Your task to perform on an android device: Open Google Chrome and click the shortcut for Amazon.com Image 0: 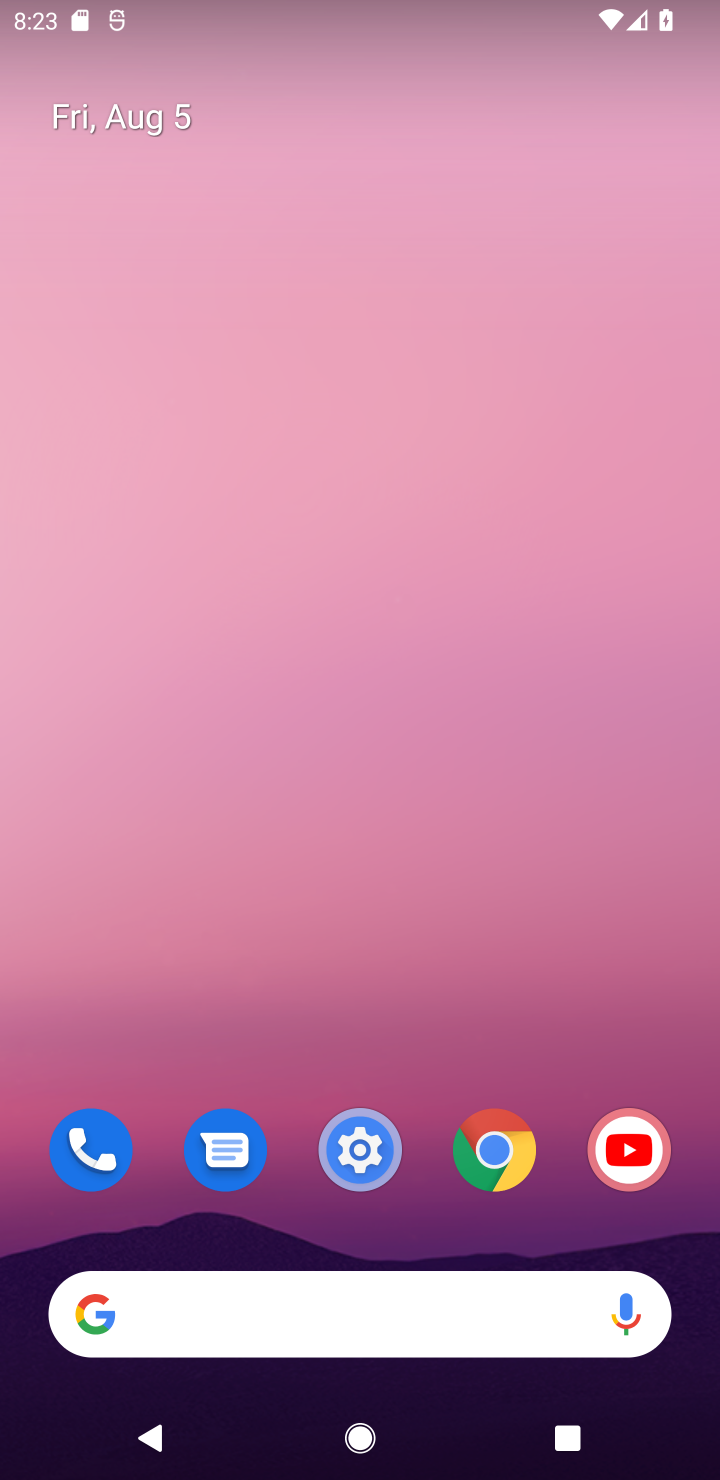
Step 0: press home button
Your task to perform on an android device: Open Google Chrome and click the shortcut for Amazon.com Image 1: 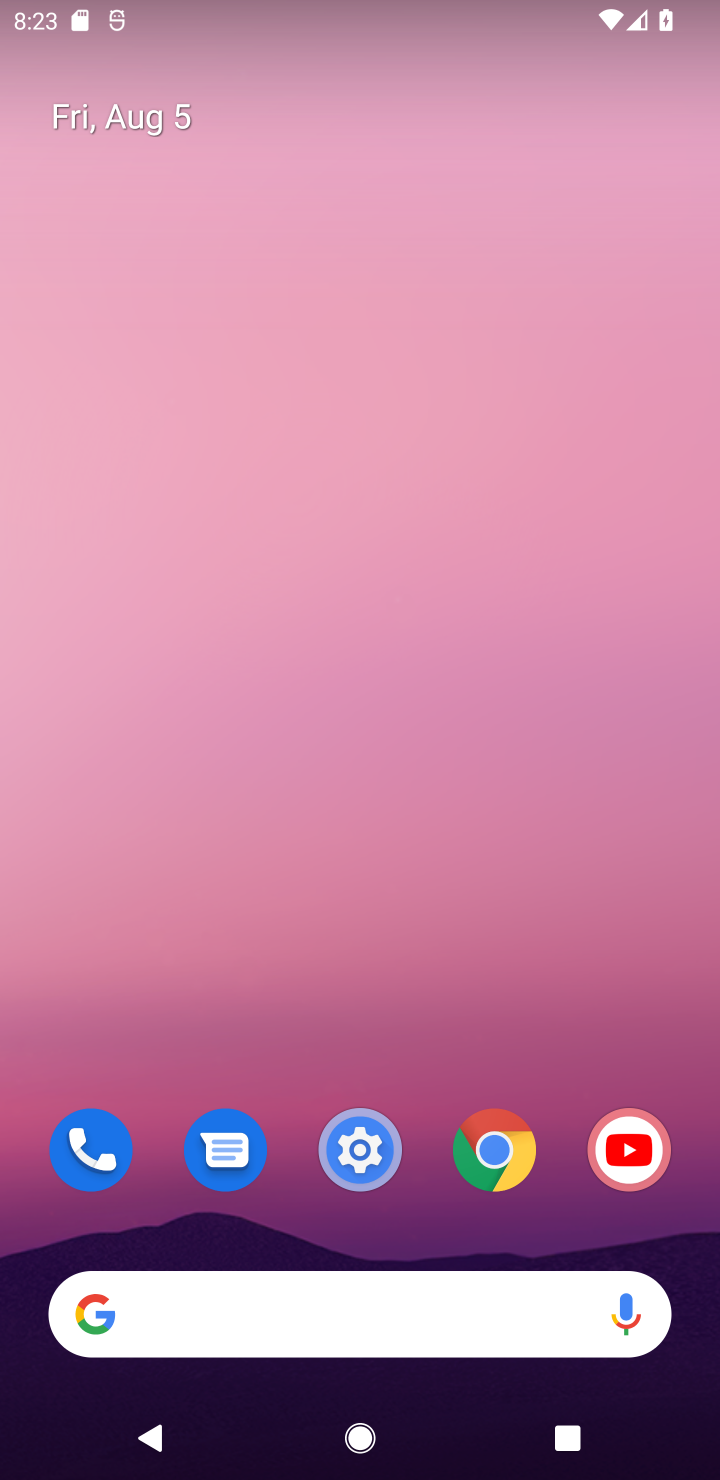
Step 1: drag from (425, 1000) to (497, 271)
Your task to perform on an android device: Open Google Chrome and click the shortcut for Amazon.com Image 2: 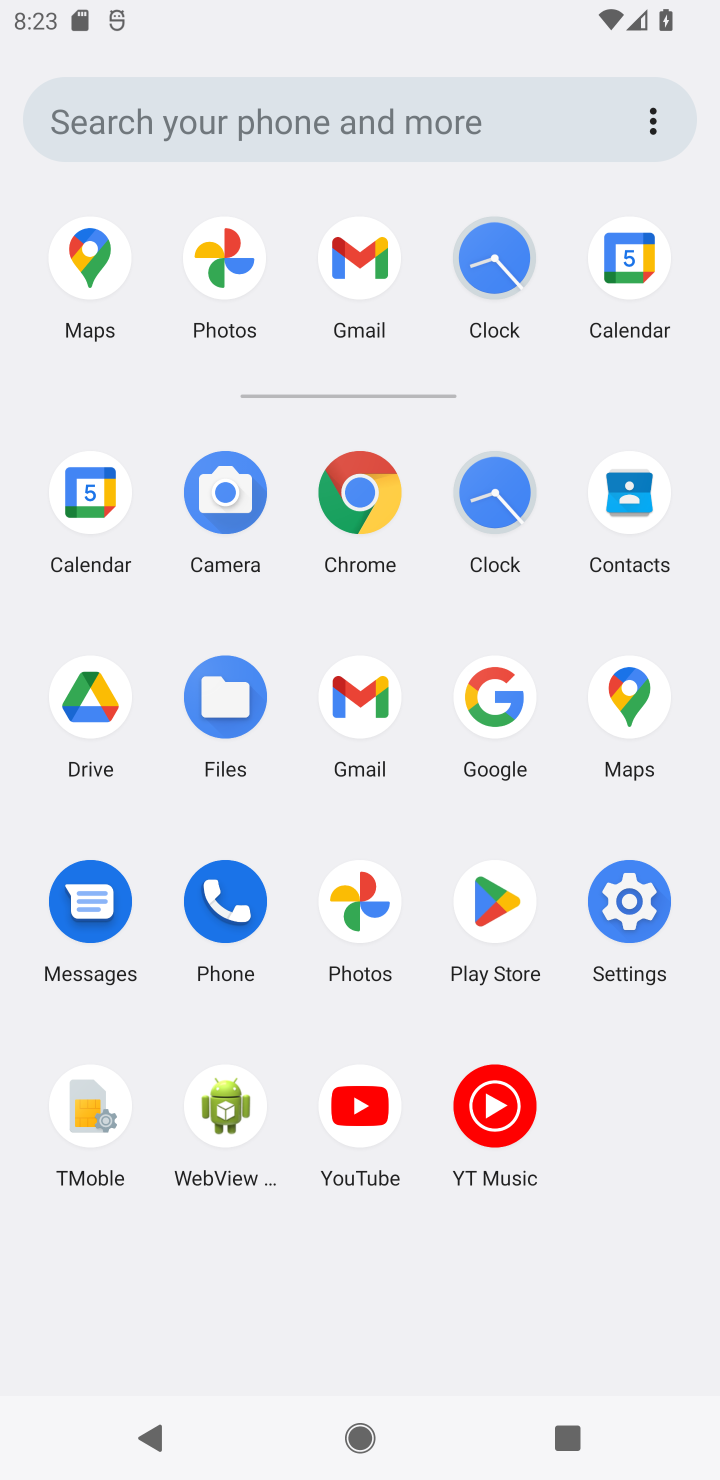
Step 2: click (357, 512)
Your task to perform on an android device: Open Google Chrome and click the shortcut for Amazon.com Image 3: 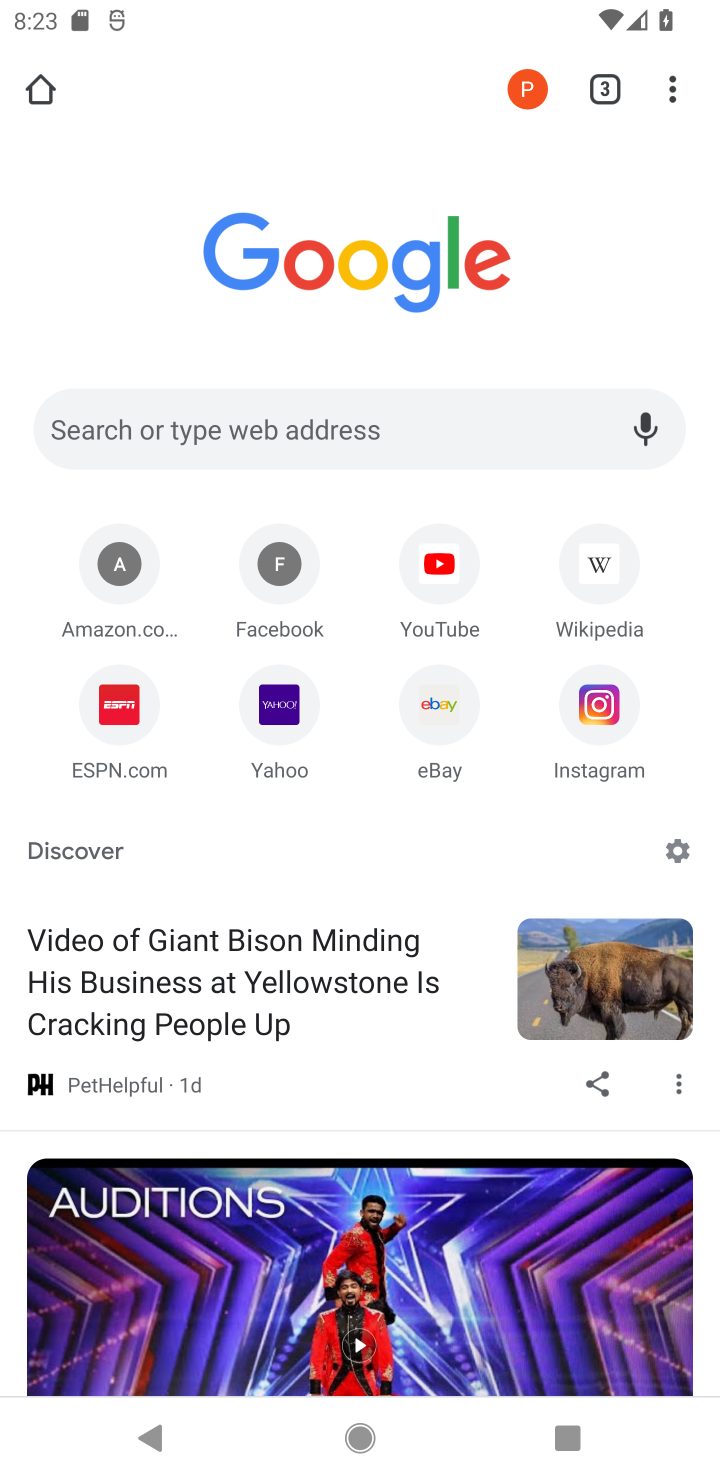
Step 3: click (108, 557)
Your task to perform on an android device: Open Google Chrome and click the shortcut for Amazon.com Image 4: 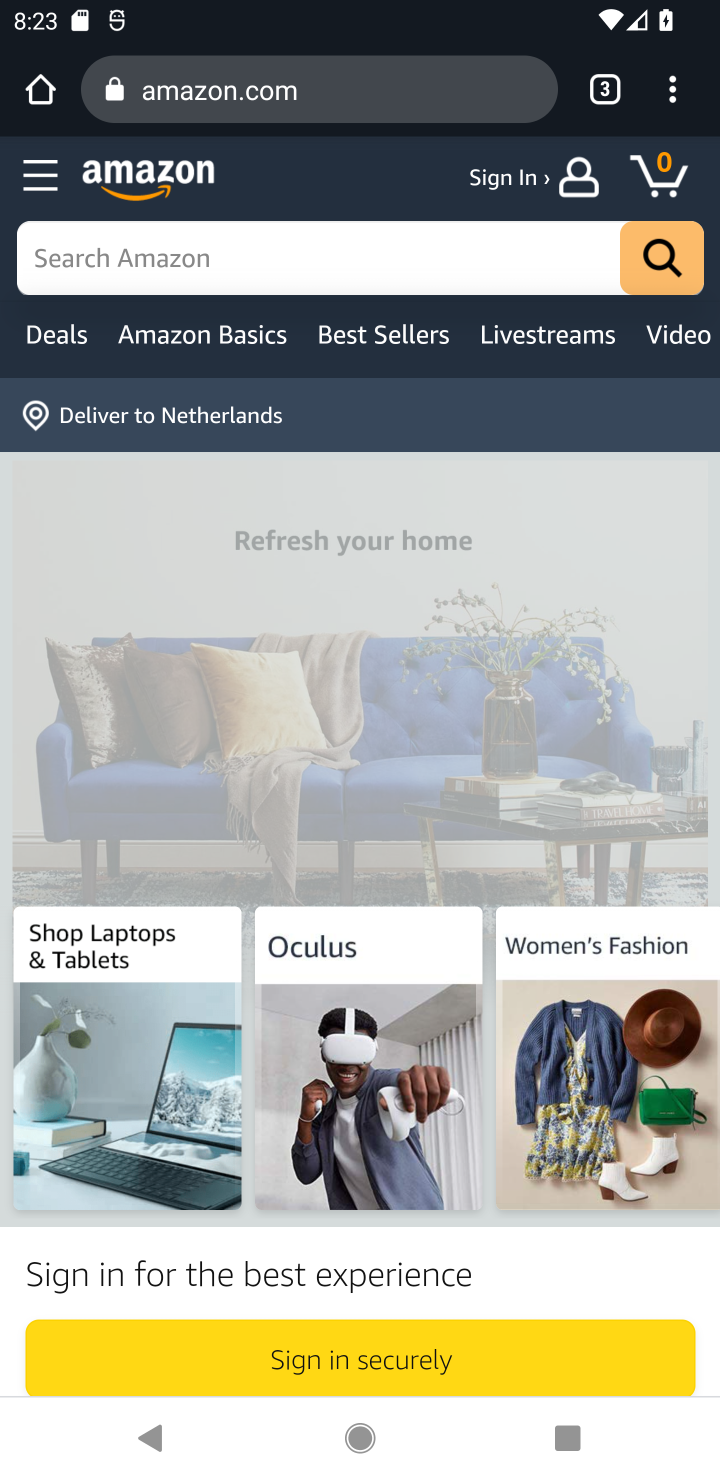
Step 4: task complete